Your task to perform on an android device: open chrome privacy settings Image 0: 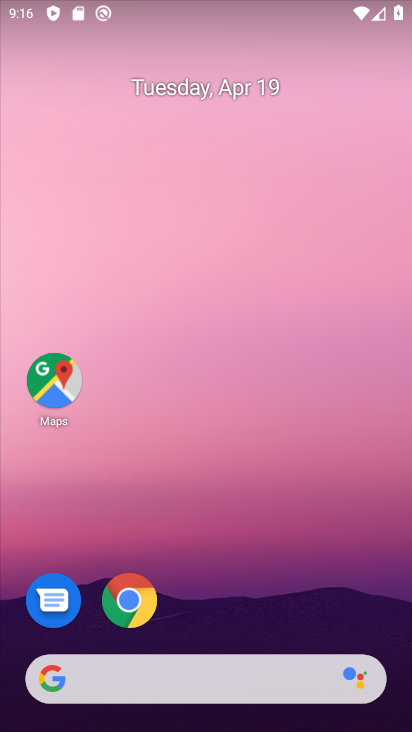
Step 0: drag from (329, 577) to (343, 189)
Your task to perform on an android device: open chrome privacy settings Image 1: 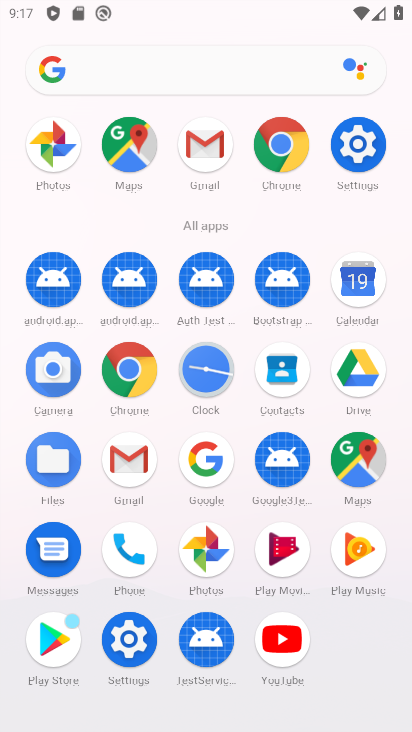
Step 1: click (282, 143)
Your task to perform on an android device: open chrome privacy settings Image 2: 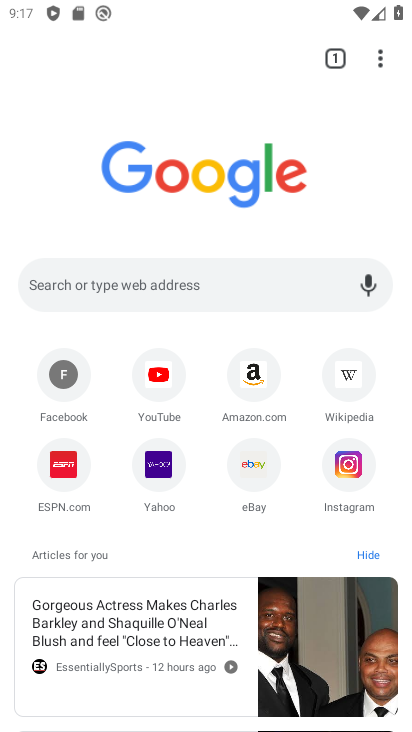
Step 2: click (384, 54)
Your task to perform on an android device: open chrome privacy settings Image 3: 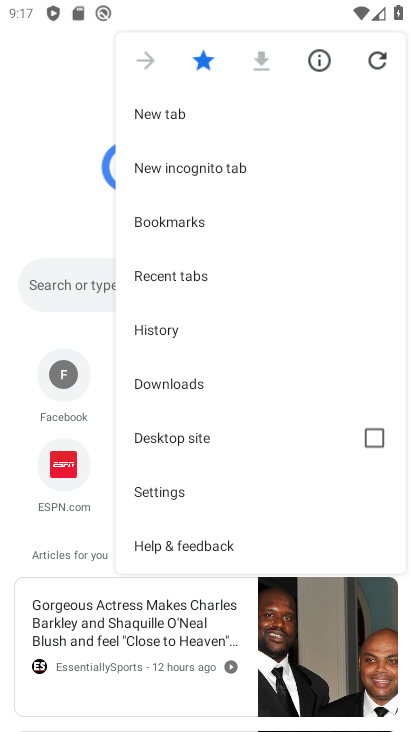
Step 3: click (180, 498)
Your task to perform on an android device: open chrome privacy settings Image 4: 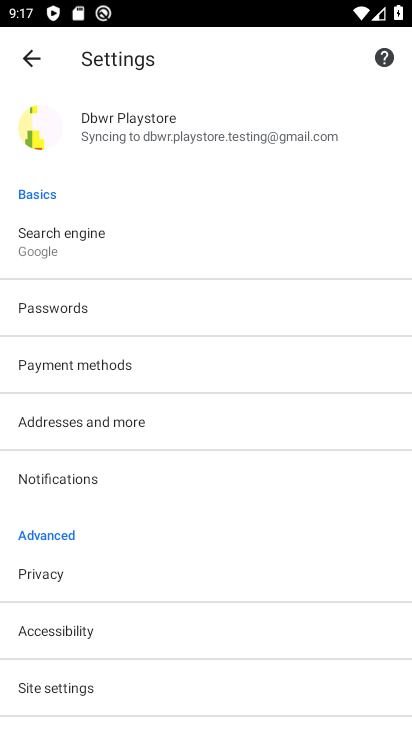
Step 4: click (108, 581)
Your task to perform on an android device: open chrome privacy settings Image 5: 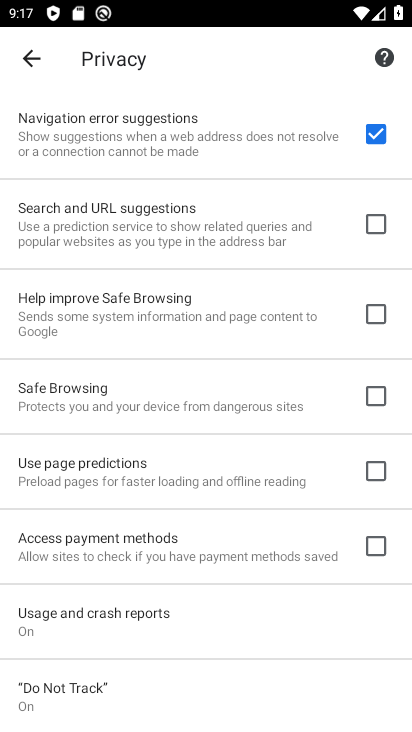
Step 5: task complete